Your task to perform on an android device: Show the shopping cart on ebay. Search for energizer triple a on ebay, select the first entry, add it to the cart, then select checkout. Image 0: 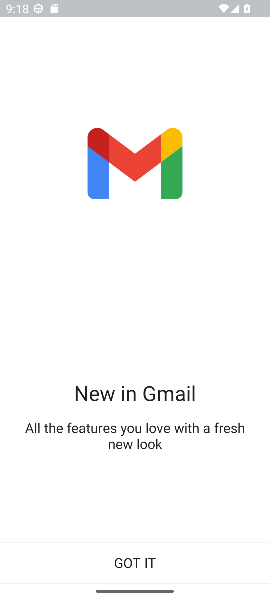
Step 0: press home button
Your task to perform on an android device: Show the shopping cart on ebay. Search for energizer triple a on ebay, select the first entry, add it to the cart, then select checkout. Image 1: 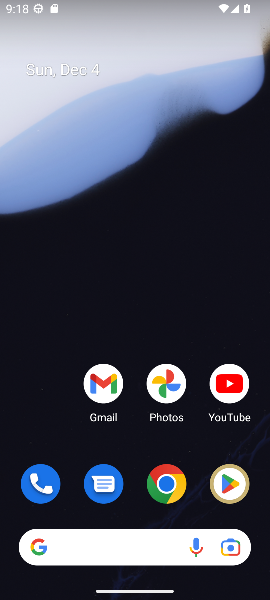
Step 1: click (163, 495)
Your task to perform on an android device: Show the shopping cart on ebay. Search for energizer triple a on ebay, select the first entry, add it to the cart, then select checkout. Image 2: 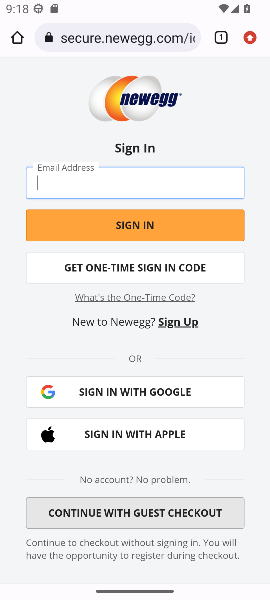
Step 2: click (101, 43)
Your task to perform on an android device: Show the shopping cart on ebay. Search for energizer triple a on ebay, select the first entry, add it to the cart, then select checkout. Image 3: 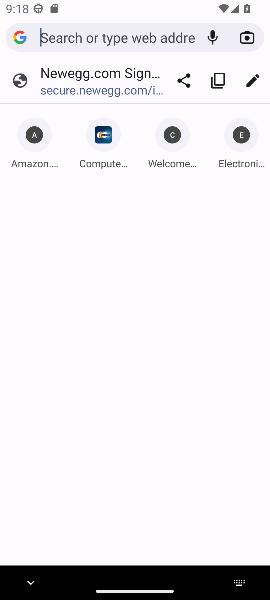
Step 3: type "ebay.com"
Your task to perform on an android device: Show the shopping cart on ebay. Search for energizer triple a on ebay, select the first entry, add it to the cart, then select checkout. Image 4: 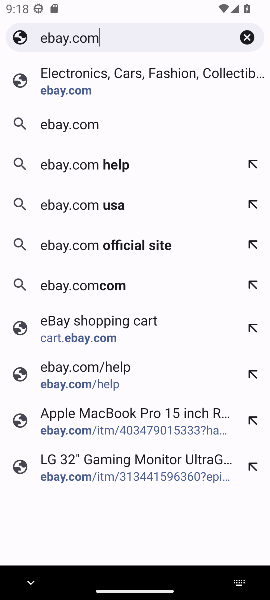
Step 4: click (74, 91)
Your task to perform on an android device: Show the shopping cart on ebay. Search for energizer triple a on ebay, select the first entry, add it to the cart, then select checkout. Image 5: 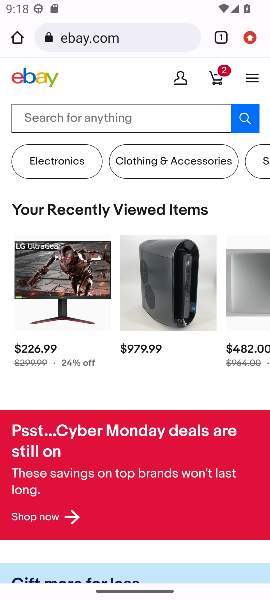
Step 5: click (215, 76)
Your task to perform on an android device: Show the shopping cart on ebay. Search for energizer triple a on ebay, select the first entry, add it to the cart, then select checkout. Image 6: 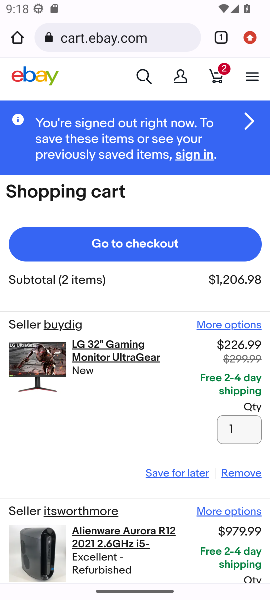
Step 6: click (142, 72)
Your task to perform on an android device: Show the shopping cart on ebay. Search for energizer triple a on ebay, select the first entry, add it to the cart, then select checkout. Image 7: 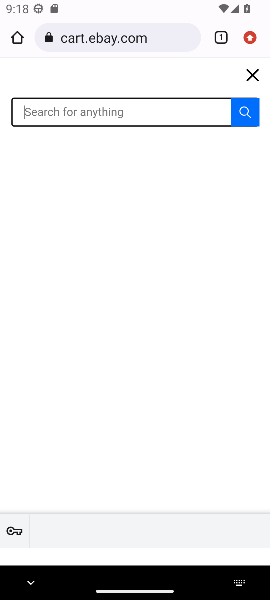
Step 7: type " energizer triple a"
Your task to perform on an android device: Show the shopping cart on ebay. Search for energizer triple a on ebay, select the first entry, add it to the cart, then select checkout. Image 8: 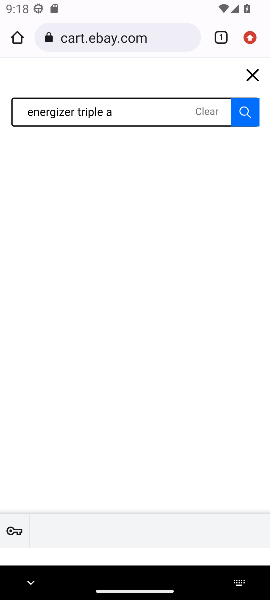
Step 8: click (244, 120)
Your task to perform on an android device: Show the shopping cart on ebay. Search for energizer triple a on ebay, select the first entry, add it to the cart, then select checkout. Image 9: 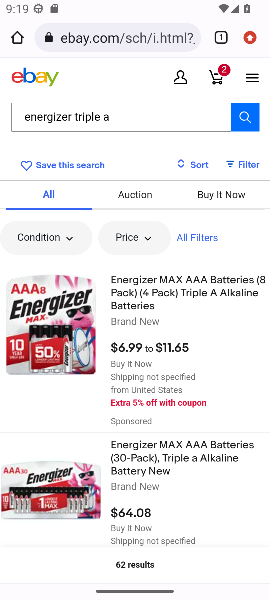
Step 9: click (122, 303)
Your task to perform on an android device: Show the shopping cart on ebay. Search for energizer triple a on ebay, select the first entry, add it to the cart, then select checkout. Image 10: 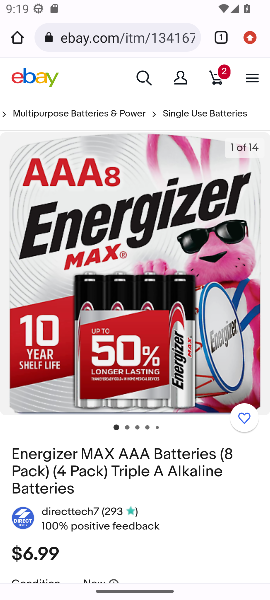
Step 10: drag from (166, 373) to (167, 267)
Your task to perform on an android device: Show the shopping cart on ebay. Search for energizer triple a on ebay, select the first entry, add it to the cart, then select checkout. Image 11: 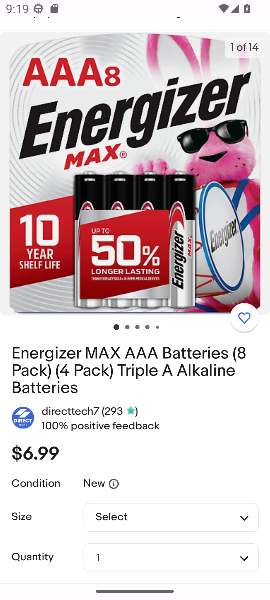
Step 11: drag from (164, 427) to (161, 245)
Your task to perform on an android device: Show the shopping cart on ebay. Search for energizer triple a on ebay, select the first entry, add it to the cart, then select checkout. Image 12: 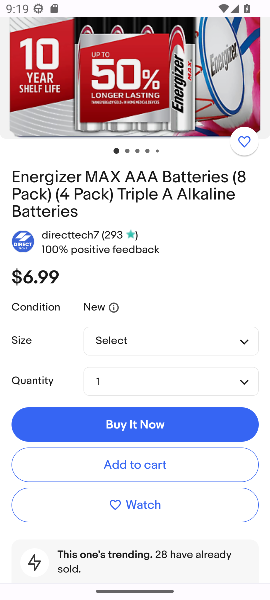
Step 12: click (127, 462)
Your task to perform on an android device: Show the shopping cart on ebay. Search for energizer triple a on ebay, select the first entry, add it to the cart, then select checkout. Image 13: 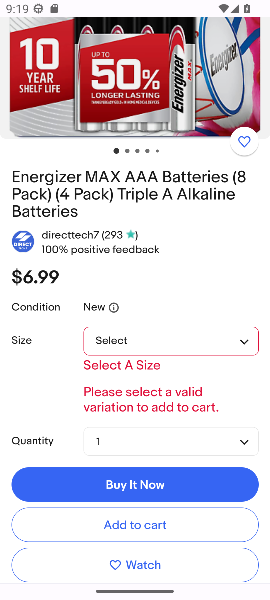
Step 13: click (245, 343)
Your task to perform on an android device: Show the shopping cart on ebay. Search for energizer triple a on ebay, select the first entry, add it to the cart, then select checkout. Image 14: 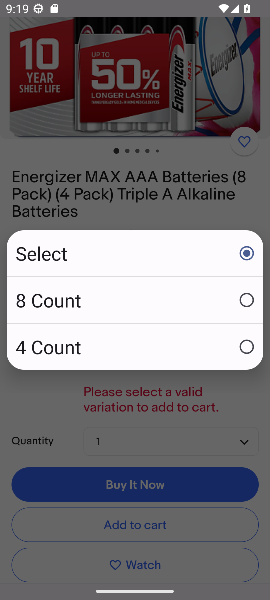
Step 14: click (66, 306)
Your task to perform on an android device: Show the shopping cart on ebay. Search for energizer triple a on ebay, select the first entry, add it to the cart, then select checkout. Image 15: 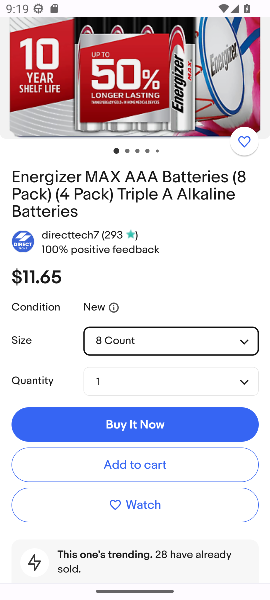
Step 15: click (125, 465)
Your task to perform on an android device: Show the shopping cart on ebay. Search for energizer triple a on ebay, select the first entry, add it to the cart, then select checkout. Image 16: 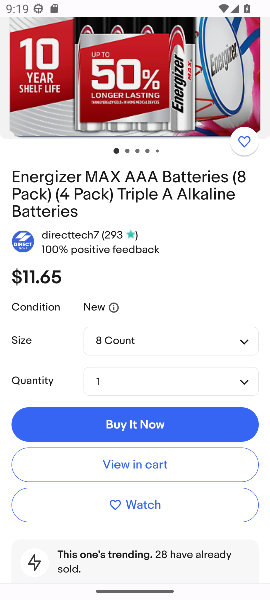
Step 16: click (125, 465)
Your task to perform on an android device: Show the shopping cart on ebay. Search for energizer triple a on ebay, select the first entry, add it to the cart, then select checkout. Image 17: 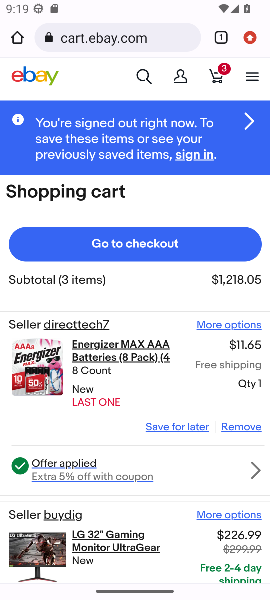
Step 17: click (131, 251)
Your task to perform on an android device: Show the shopping cart on ebay. Search for energizer triple a on ebay, select the first entry, add it to the cart, then select checkout. Image 18: 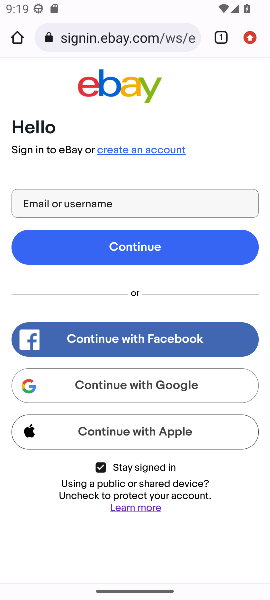
Step 18: task complete